Your task to perform on an android device: choose inbox layout in the gmail app Image 0: 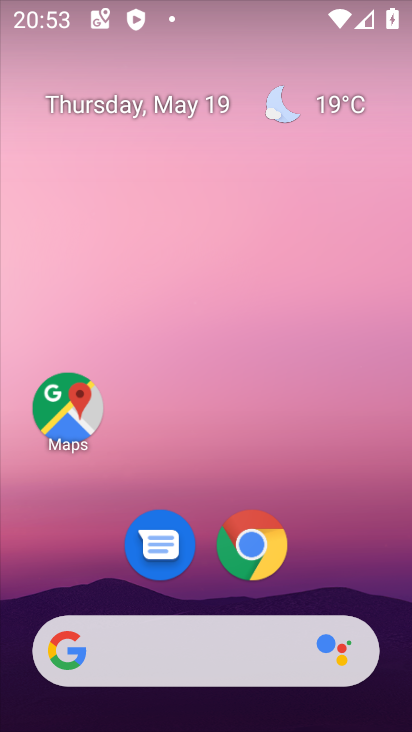
Step 0: drag from (350, 573) to (350, 284)
Your task to perform on an android device: choose inbox layout in the gmail app Image 1: 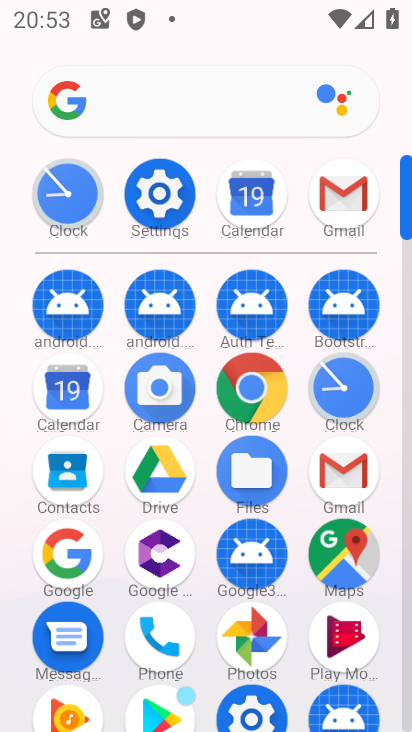
Step 1: click (365, 461)
Your task to perform on an android device: choose inbox layout in the gmail app Image 2: 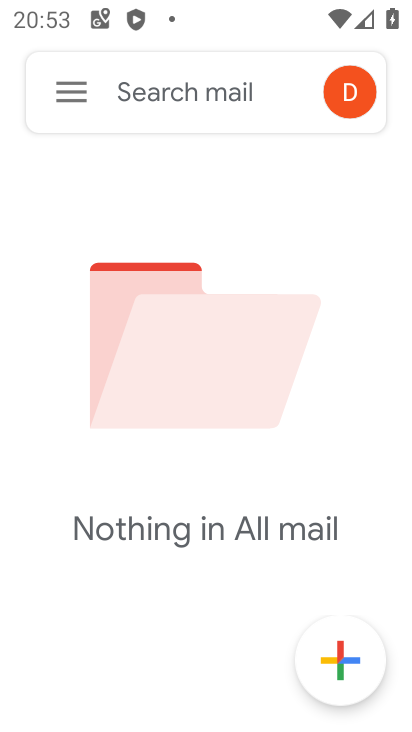
Step 2: click (67, 90)
Your task to perform on an android device: choose inbox layout in the gmail app Image 3: 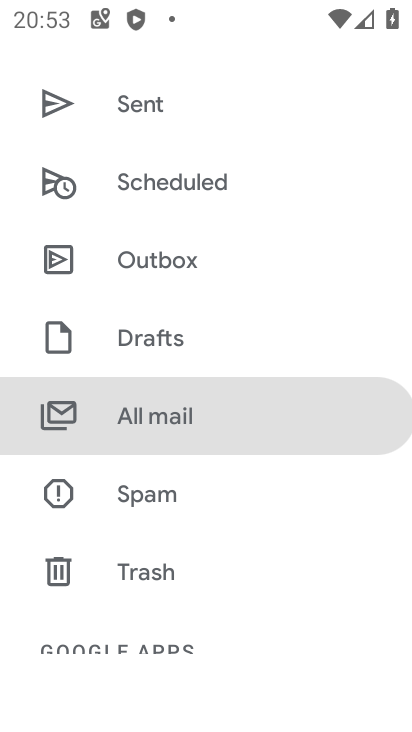
Step 3: drag from (178, 240) to (265, 593)
Your task to perform on an android device: choose inbox layout in the gmail app Image 4: 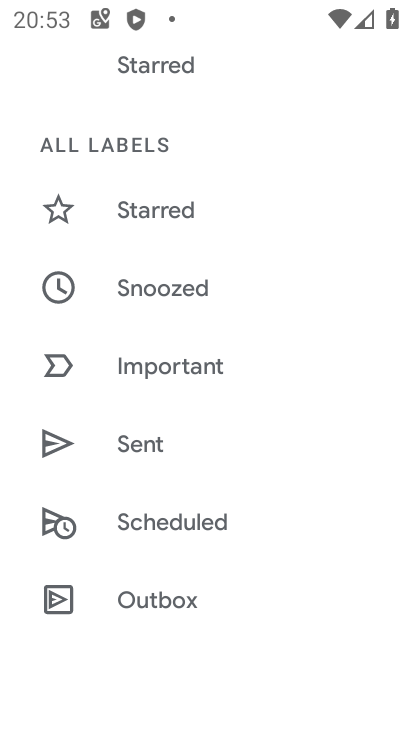
Step 4: drag from (254, 211) to (272, 643)
Your task to perform on an android device: choose inbox layout in the gmail app Image 5: 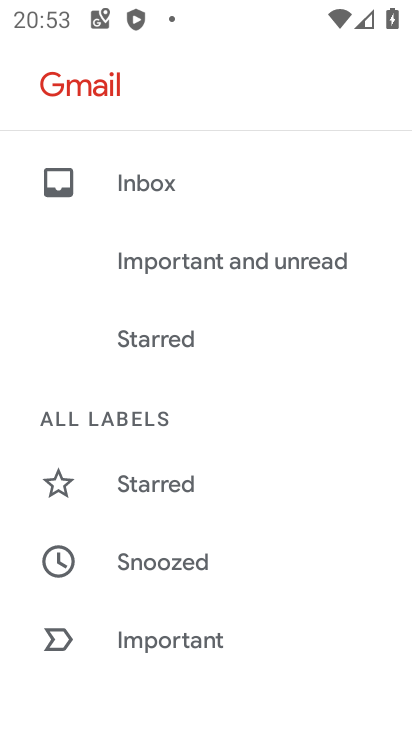
Step 5: click (214, 162)
Your task to perform on an android device: choose inbox layout in the gmail app Image 6: 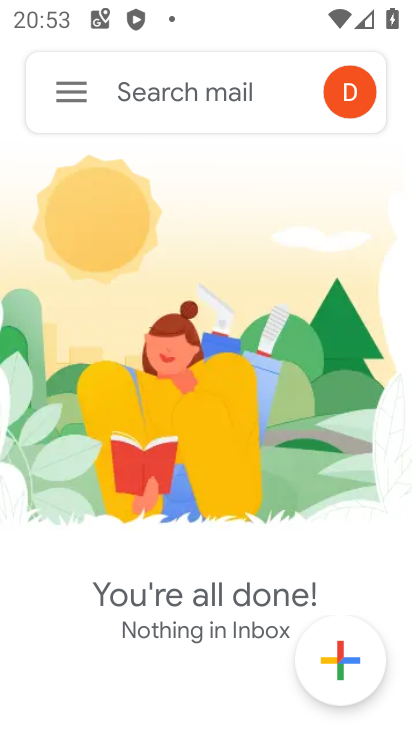
Step 6: task complete